Your task to perform on an android device: turn off notifications in google photos Image 0: 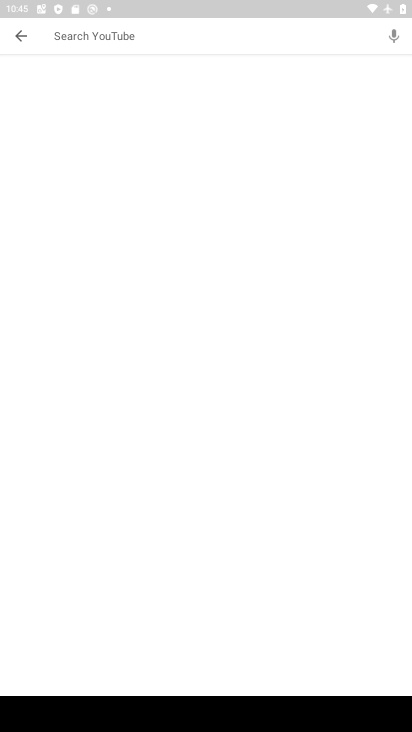
Step 0: press home button
Your task to perform on an android device: turn off notifications in google photos Image 1: 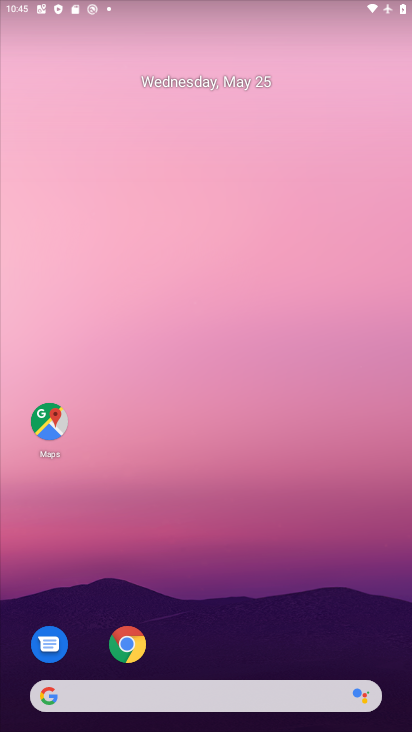
Step 1: drag from (197, 637) to (253, 34)
Your task to perform on an android device: turn off notifications in google photos Image 2: 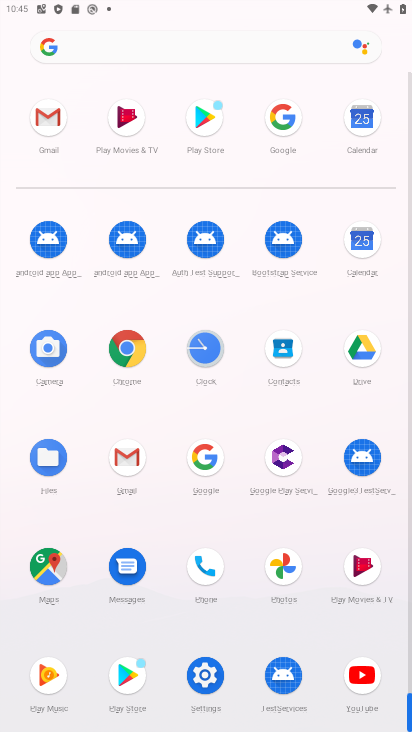
Step 2: click (268, 572)
Your task to perform on an android device: turn off notifications in google photos Image 3: 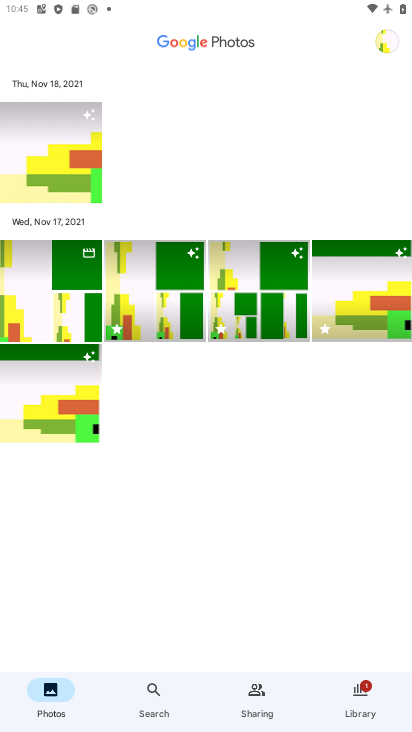
Step 3: click (384, 43)
Your task to perform on an android device: turn off notifications in google photos Image 4: 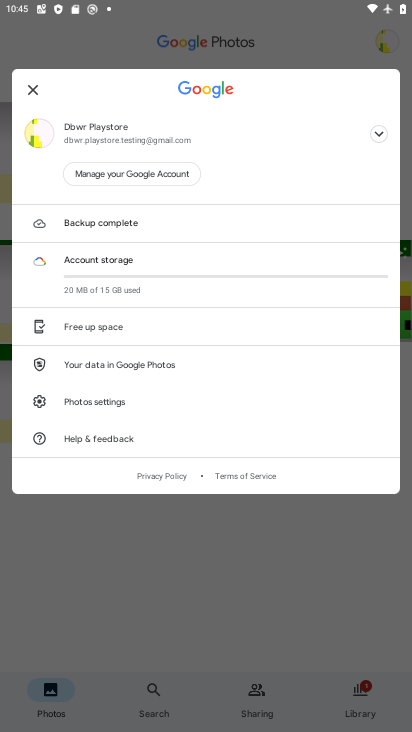
Step 4: click (117, 401)
Your task to perform on an android device: turn off notifications in google photos Image 5: 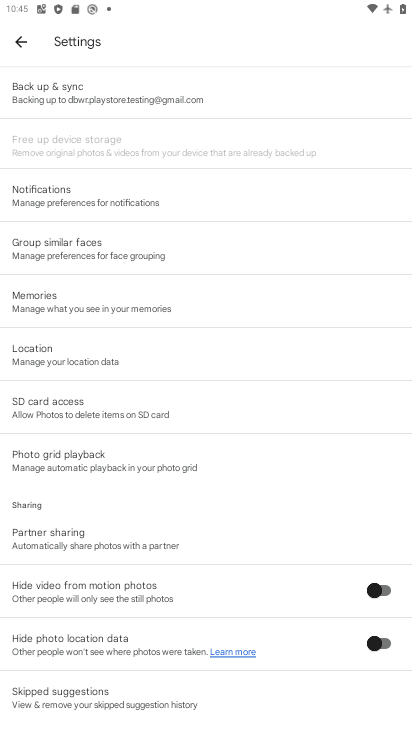
Step 5: click (150, 212)
Your task to perform on an android device: turn off notifications in google photos Image 6: 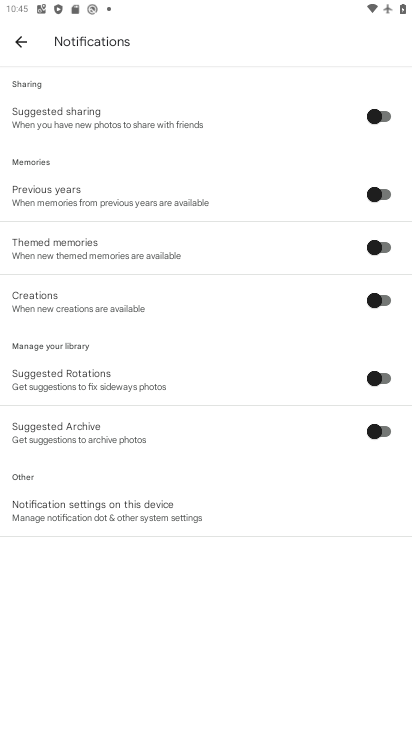
Step 6: click (180, 506)
Your task to perform on an android device: turn off notifications in google photos Image 7: 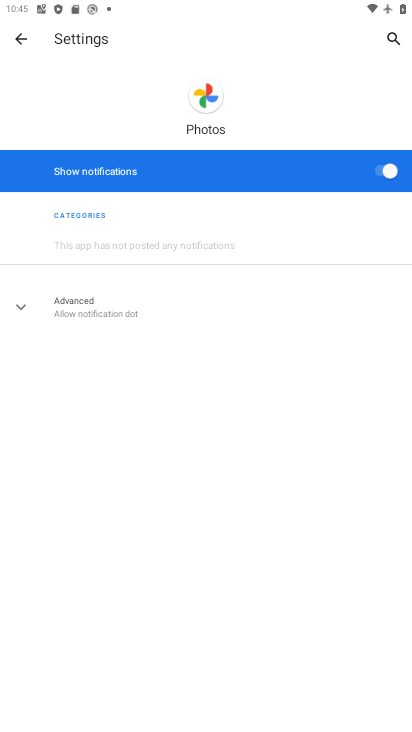
Step 7: click (387, 167)
Your task to perform on an android device: turn off notifications in google photos Image 8: 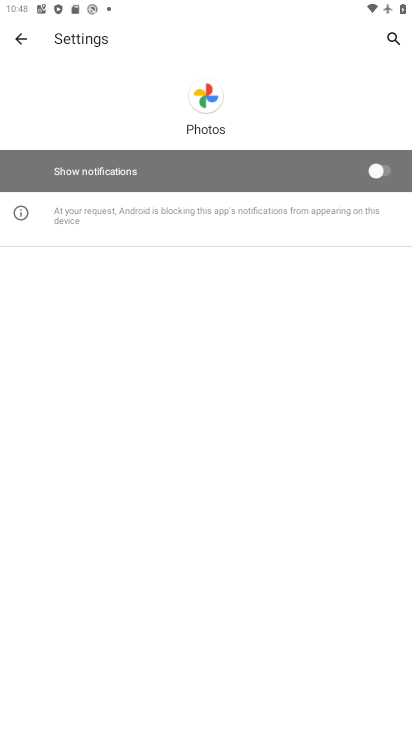
Step 8: task complete